Your task to perform on an android device: Open Chrome and go to the settings page Image 0: 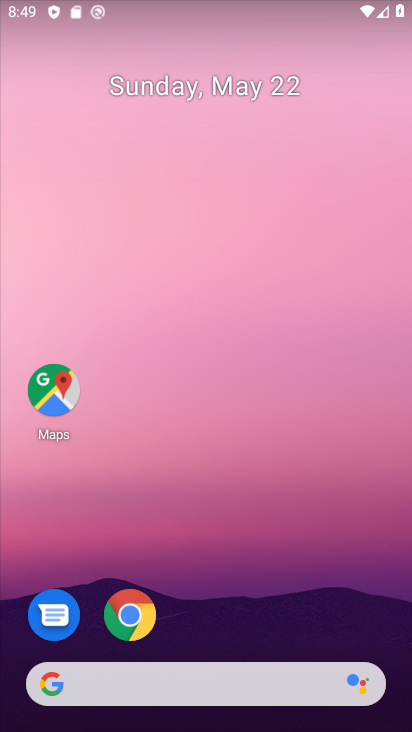
Step 0: drag from (269, 594) to (271, 248)
Your task to perform on an android device: Open Chrome and go to the settings page Image 1: 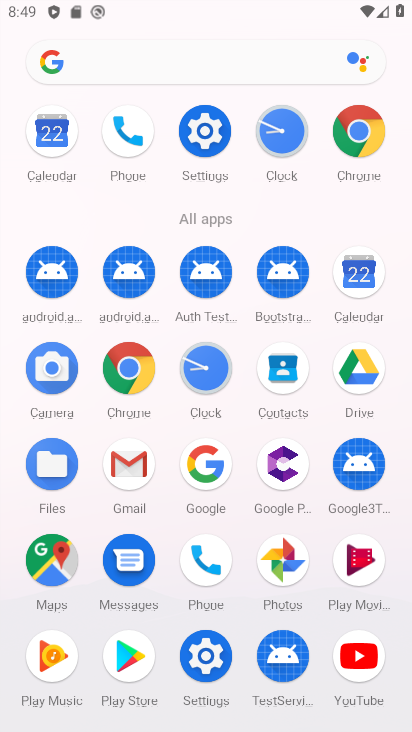
Step 1: click (127, 368)
Your task to perform on an android device: Open Chrome and go to the settings page Image 2: 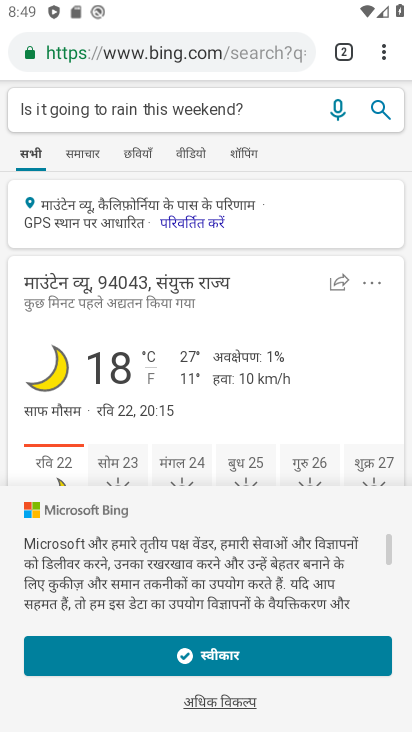
Step 2: click (381, 51)
Your task to perform on an android device: Open Chrome and go to the settings page Image 3: 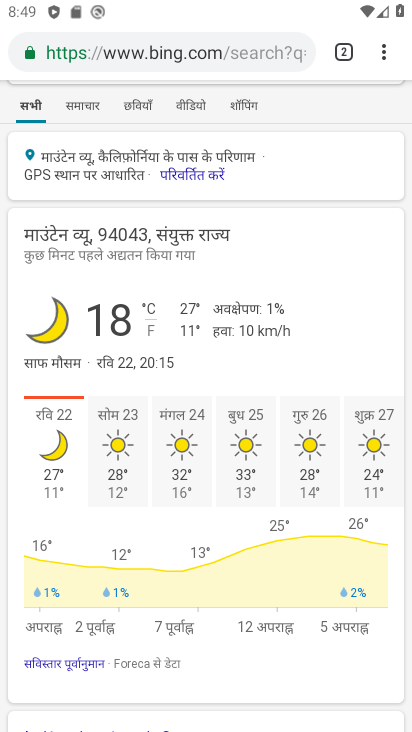
Step 3: click (381, 71)
Your task to perform on an android device: Open Chrome and go to the settings page Image 4: 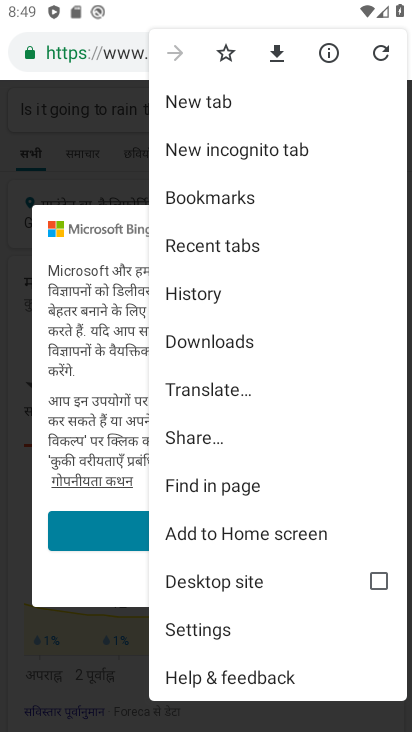
Step 4: drag from (199, 597) to (225, 476)
Your task to perform on an android device: Open Chrome and go to the settings page Image 5: 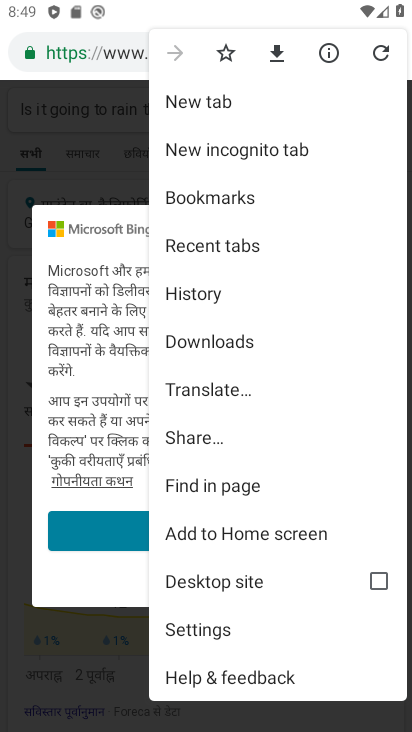
Step 5: click (208, 623)
Your task to perform on an android device: Open Chrome and go to the settings page Image 6: 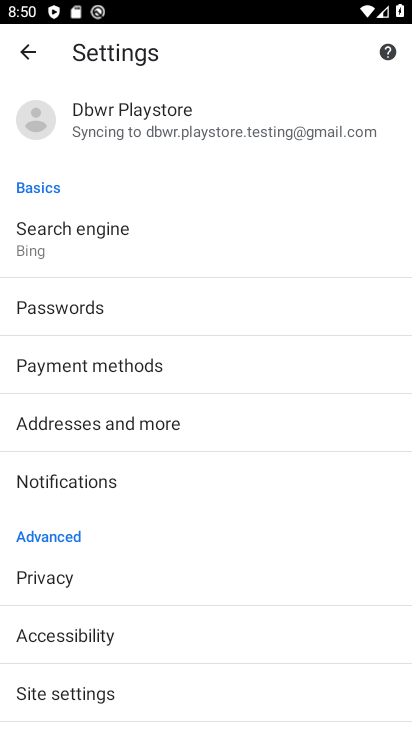
Step 6: task complete